Your task to perform on an android device: Open Android settings Image 0: 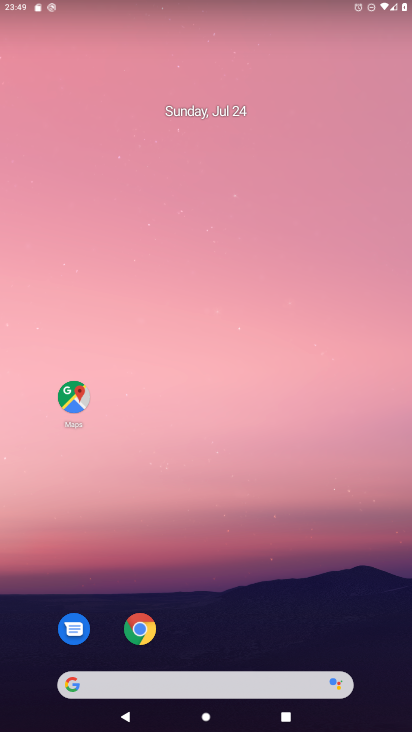
Step 0: drag from (192, 631) to (316, 4)
Your task to perform on an android device: Open Android settings Image 1: 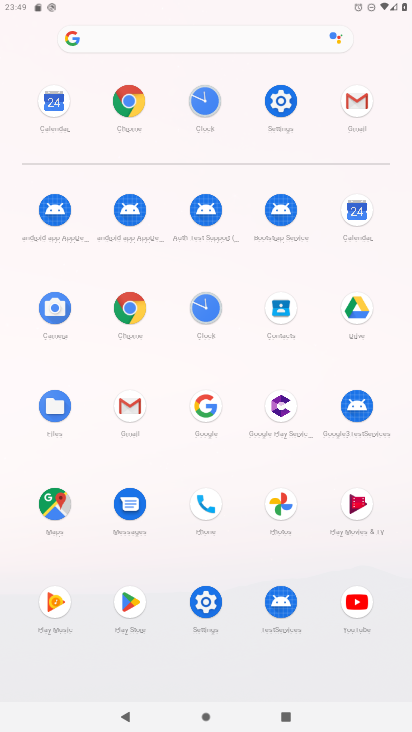
Step 1: click (282, 104)
Your task to perform on an android device: Open Android settings Image 2: 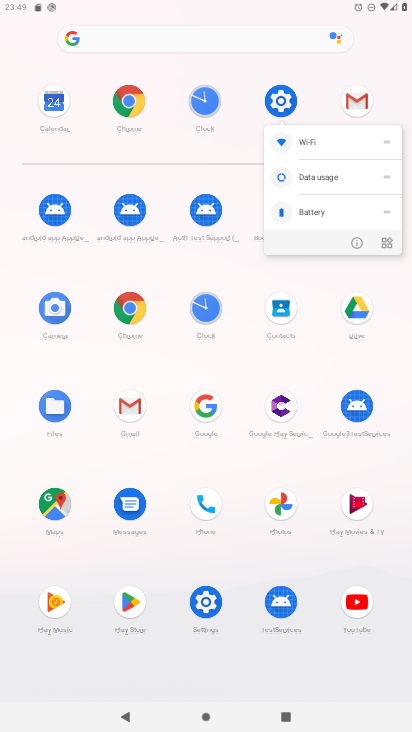
Step 2: click (356, 239)
Your task to perform on an android device: Open Android settings Image 3: 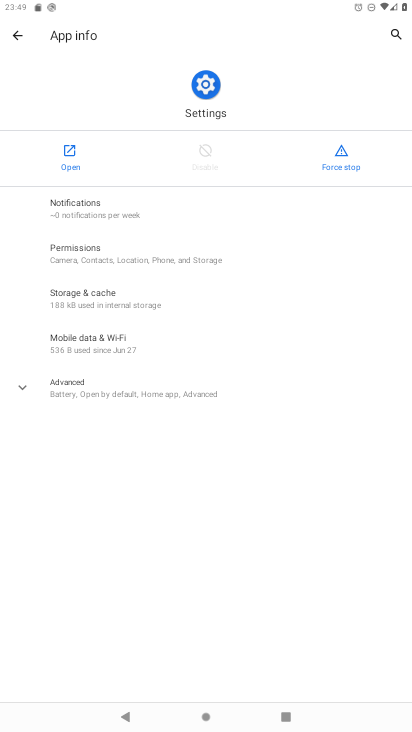
Step 3: click (60, 152)
Your task to perform on an android device: Open Android settings Image 4: 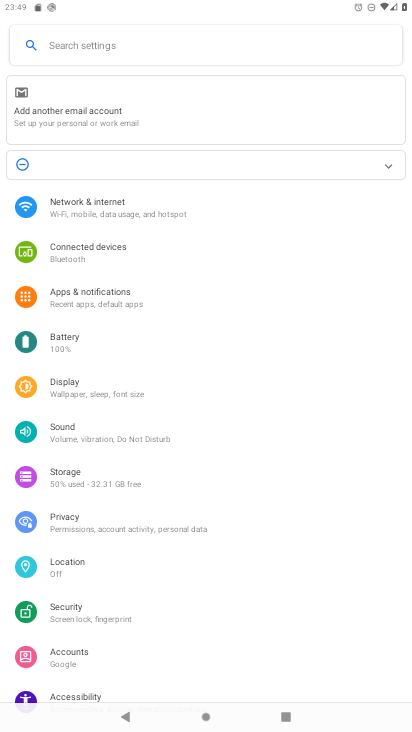
Step 4: drag from (70, 641) to (244, 0)
Your task to perform on an android device: Open Android settings Image 5: 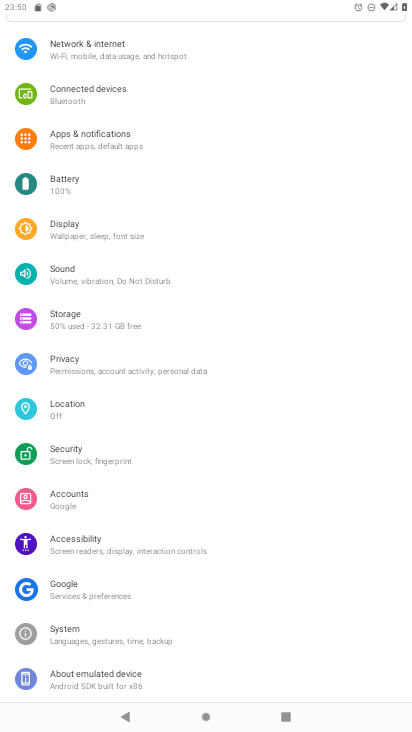
Step 5: click (139, 671)
Your task to perform on an android device: Open Android settings Image 6: 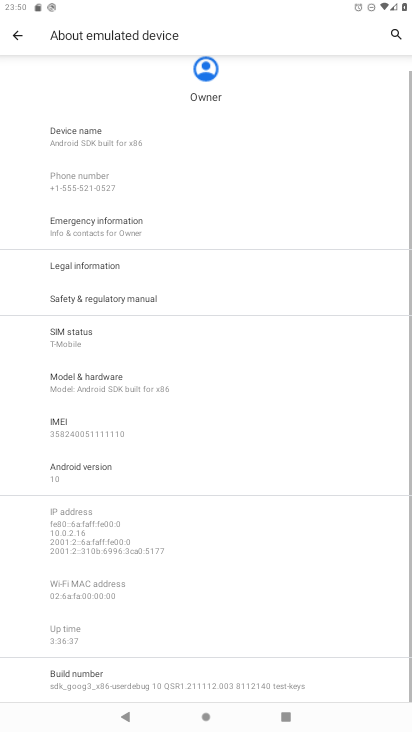
Step 6: click (103, 465)
Your task to perform on an android device: Open Android settings Image 7: 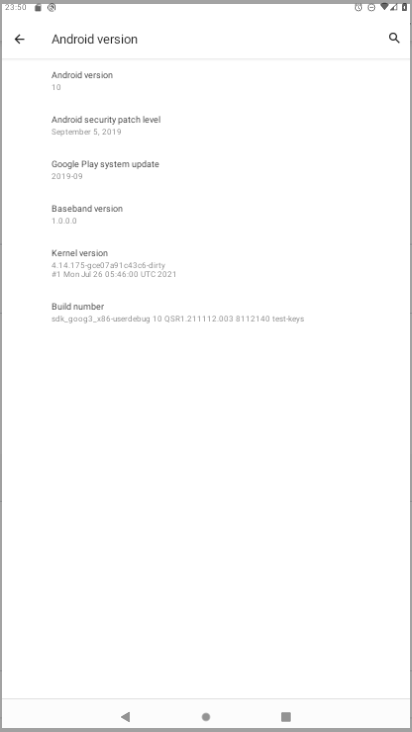
Step 7: click (182, 65)
Your task to perform on an android device: Open Android settings Image 8: 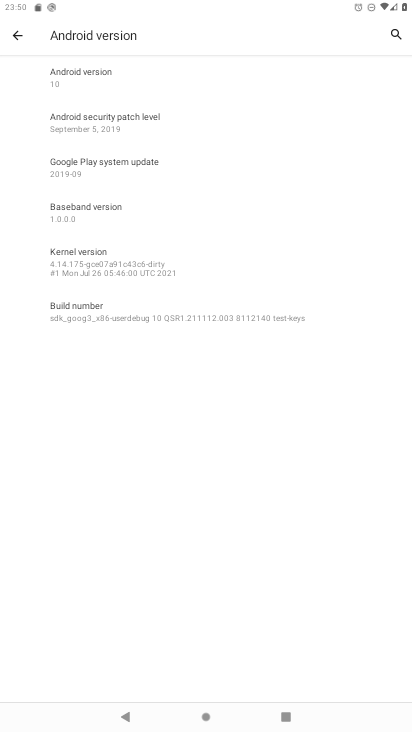
Step 8: click (126, 78)
Your task to perform on an android device: Open Android settings Image 9: 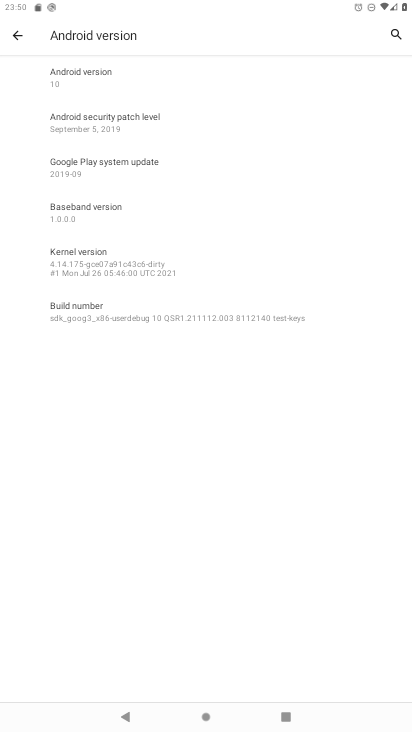
Step 9: task complete